Your task to perform on an android device: Open network settings Image 0: 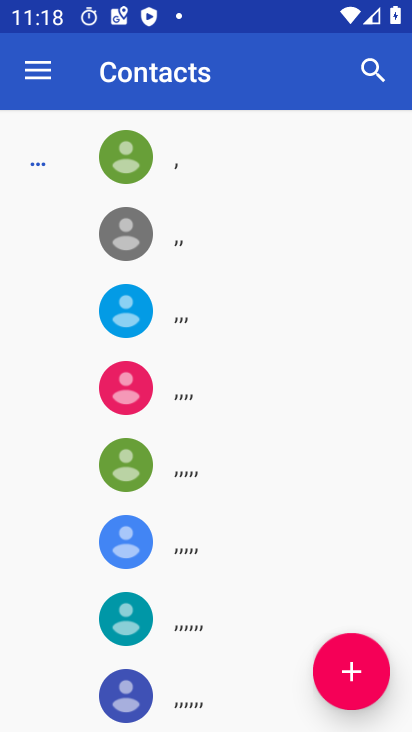
Step 0: press home button
Your task to perform on an android device: Open network settings Image 1: 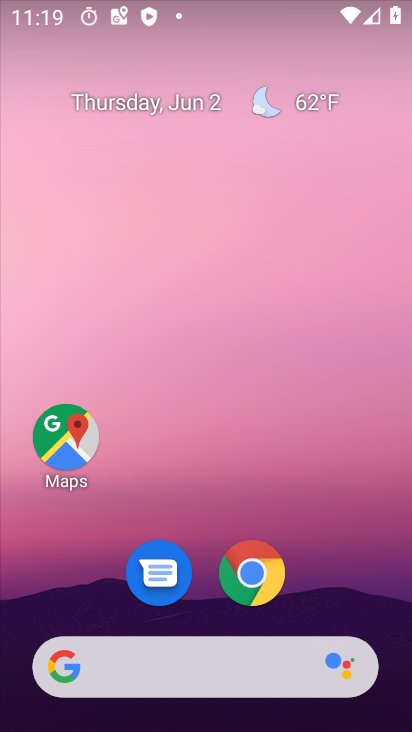
Step 1: drag from (133, 681) to (180, 6)
Your task to perform on an android device: Open network settings Image 2: 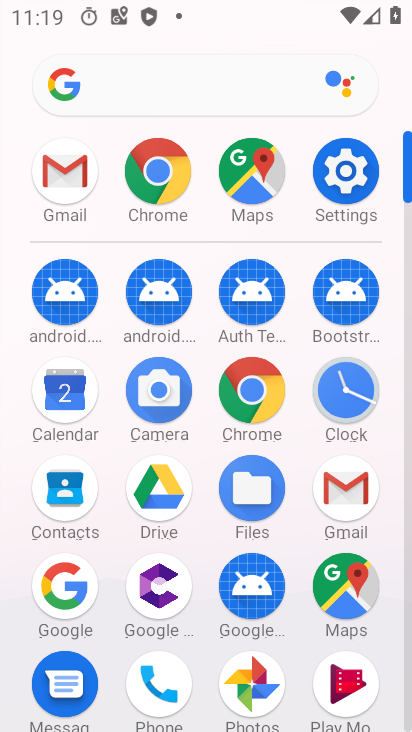
Step 2: click (332, 192)
Your task to perform on an android device: Open network settings Image 3: 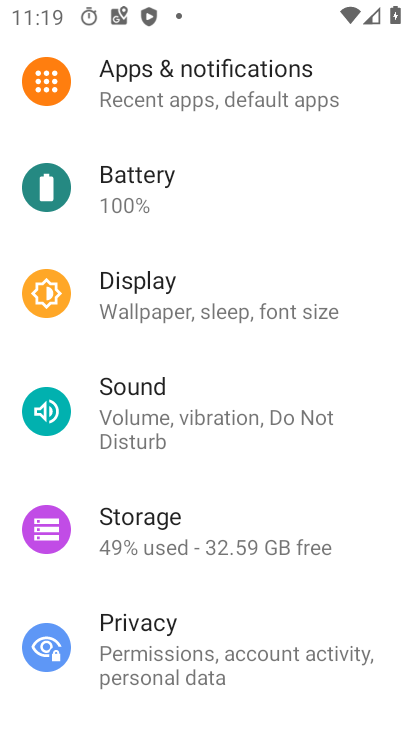
Step 3: drag from (255, 276) to (246, 701)
Your task to perform on an android device: Open network settings Image 4: 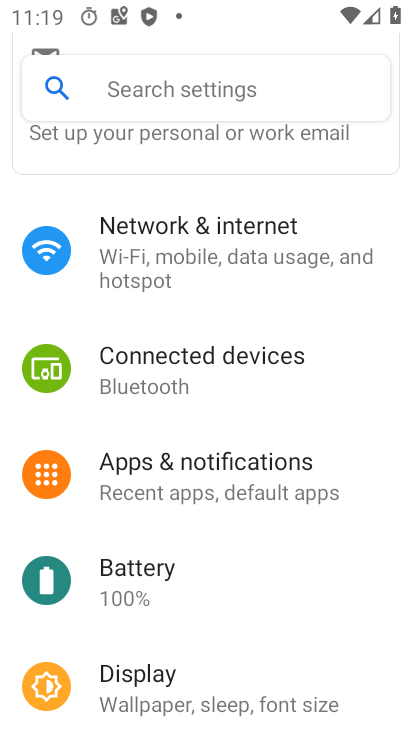
Step 4: click (203, 259)
Your task to perform on an android device: Open network settings Image 5: 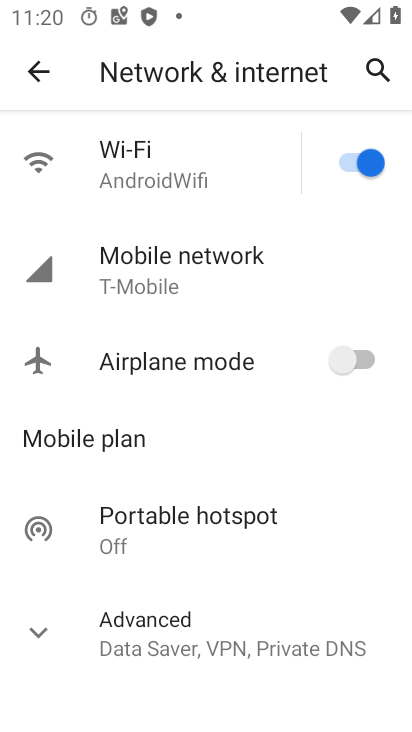
Step 5: press home button
Your task to perform on an android device: Open network settings Image 6: 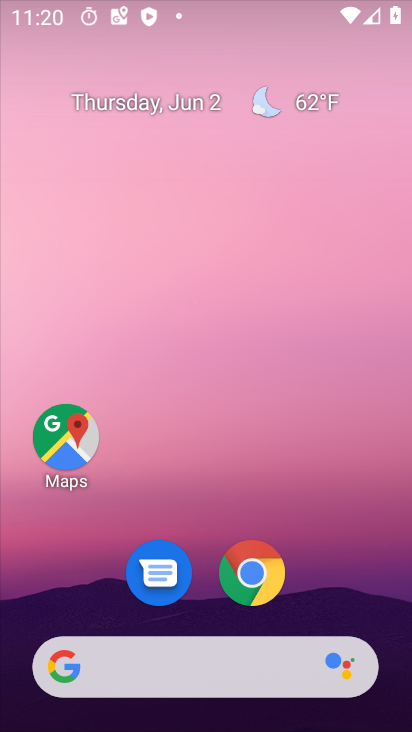
Step 6: drag from (189, 723) to (212, 236)
Your task to perform on an android device: Open network settings Image 7: 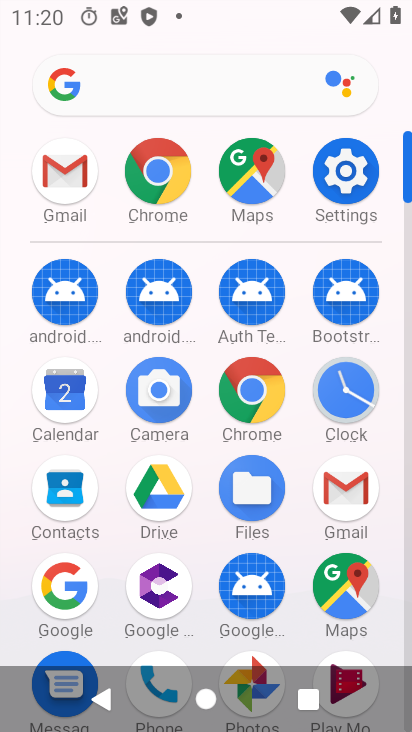
Step 7: click (350, 179)
Your task to perform on an android device: Open network settings Image 8: 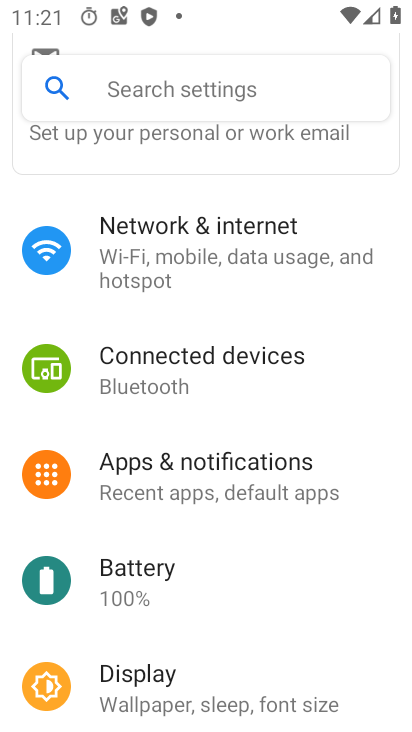
Step 8: click (184, 258)
Your task to perform on an android device: Open network settings Image 9: 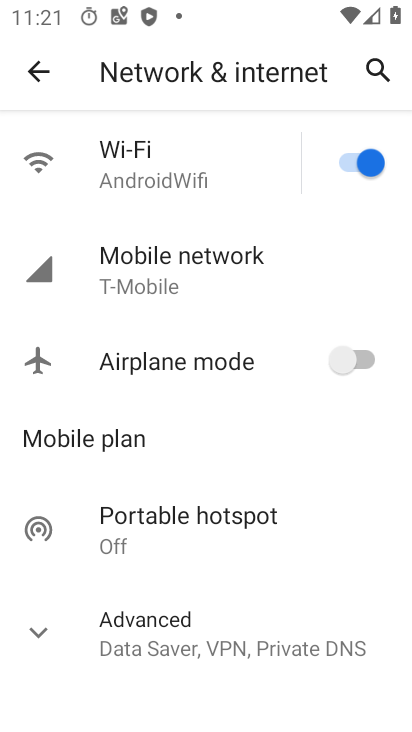
Step 9: click (233, 266)
Your task to perform on an android device: Open network settings Image 10: 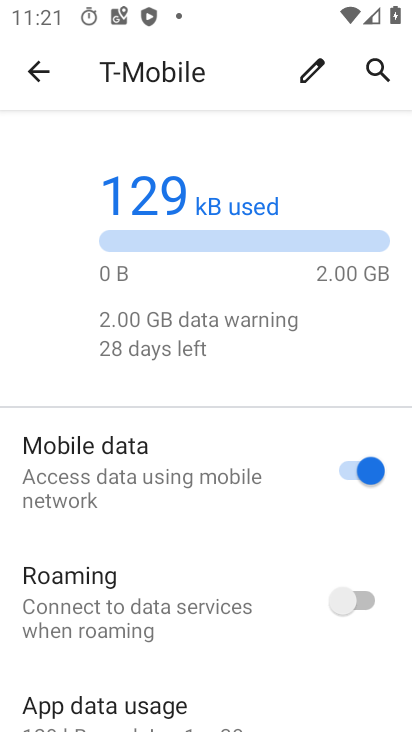
Step 10: task complete